Your task to perform on an android device: Turn off the flashlight Image 0: 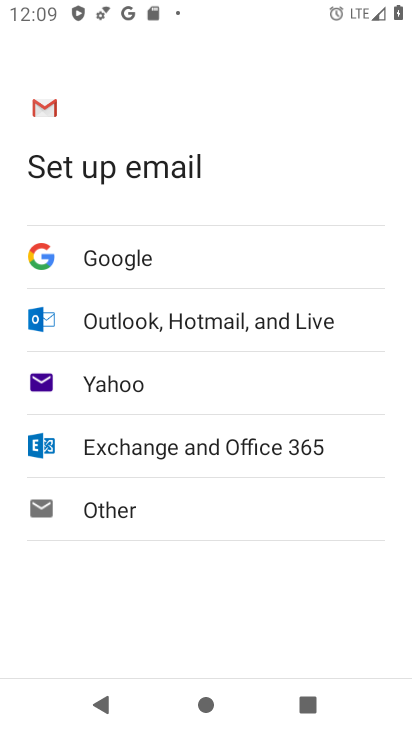
Step 0: press home button
Your task to perform on an android device: Turn off the flashlight Image 1: 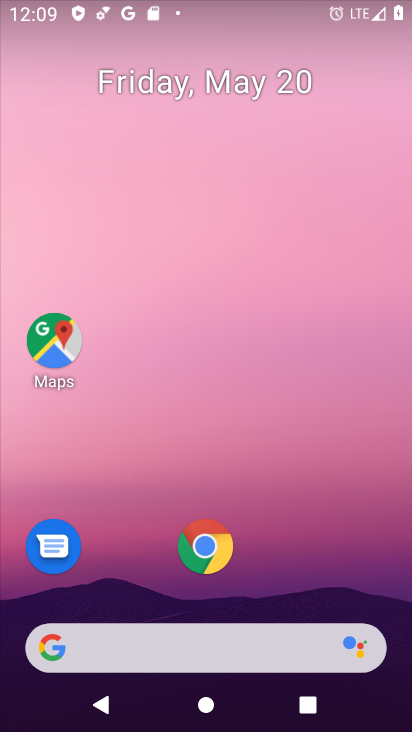
Step 1: drag from (309, 7) to (316, 603)
Your task to perform on an android device: Turn off the flashlight Image 2: 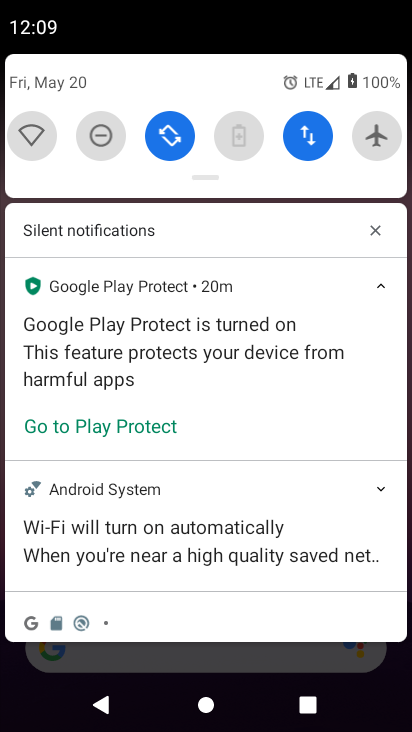
Step 2: drag from (215, 153) to (213, 589)
Your task to perform on an android device: Turn off the flashlight Image 3: 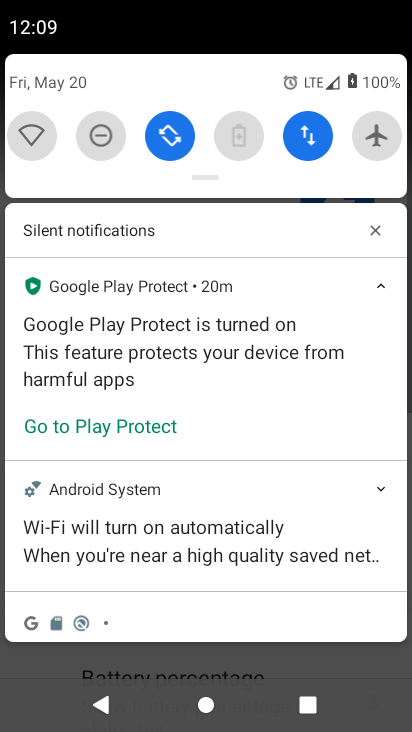
Step 3: drag from (315, 203) to (281, 585)
Your task to perform on an android device: Turn off the flashlight Image 4: 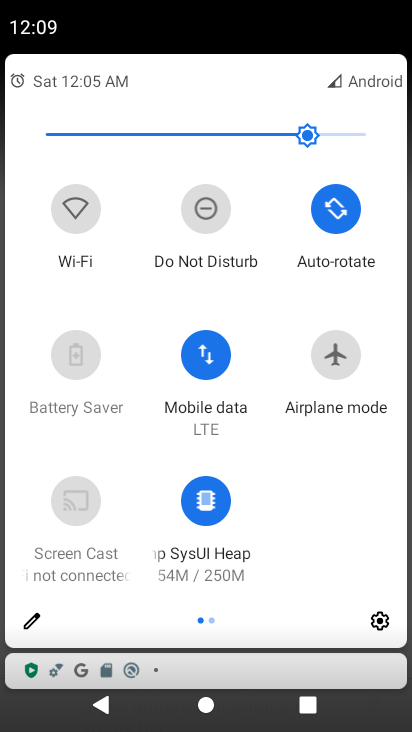
Step 4: drag from (342, 330) to (17, 351)
Your task to perform on an android device: Turn off the flashlight Image 5: 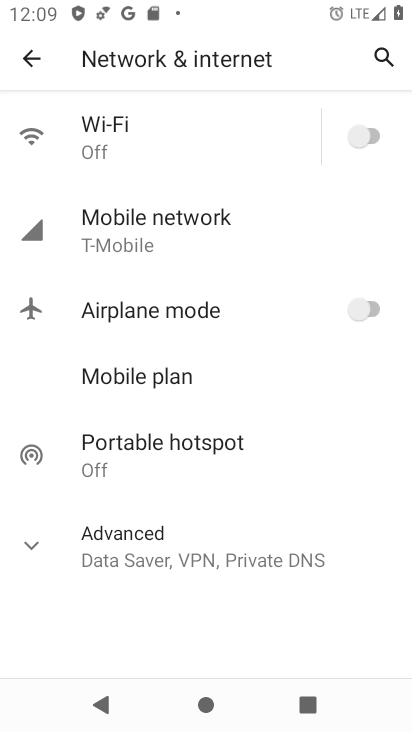
Step 5: click (33, 68)
Your task to perform on an android device: Turn off the flashlight Image 6: 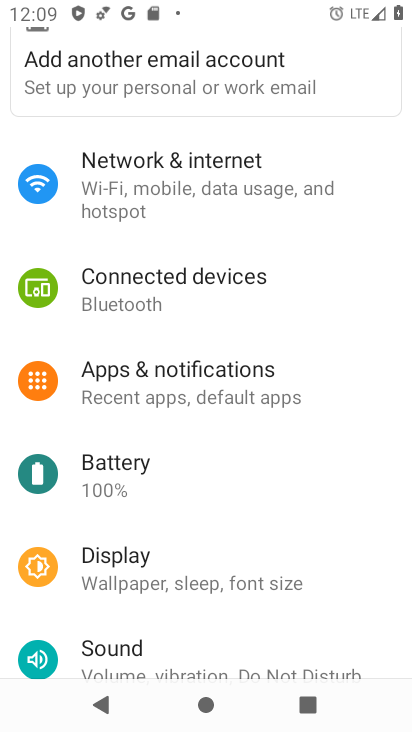
Step 6: click (157, 560)
Your task to perform on an android device: Turn off the flashlight Image 7: 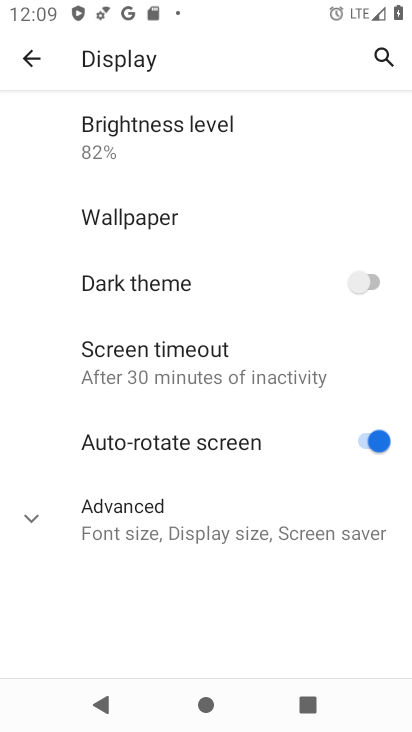
Step 7: task complete